Your task to perform on an android device: Open Youtube and go to "Your channel" Image 0: 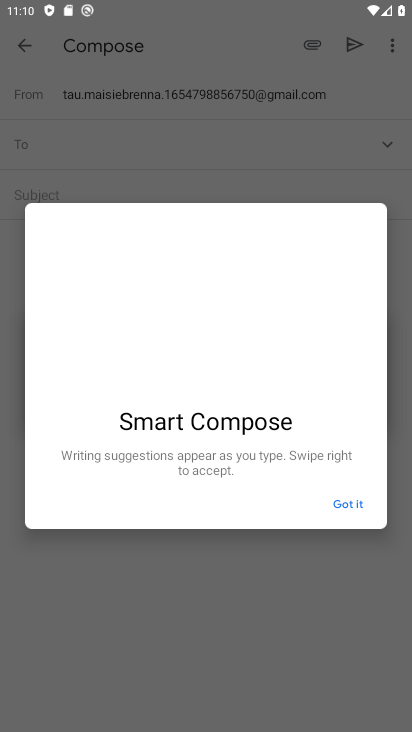
Step 0: press home button
Your task to perform on an android device: Open Youtube and go to "Your channel" Image 1: 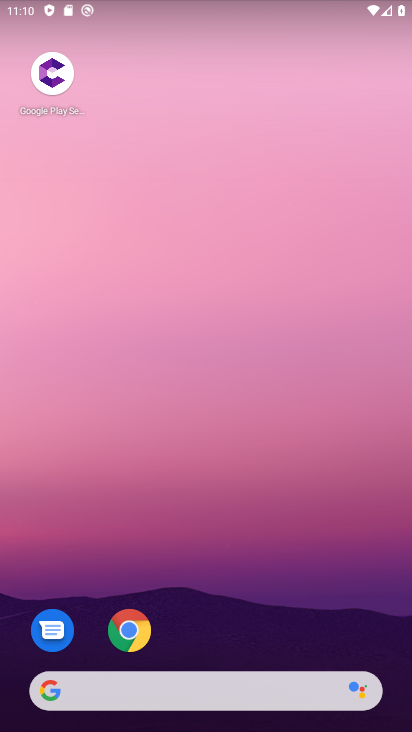
Step 1: drag from (178, 665) to (5, 228)
Your task to perform on an android device: Open Youtube and go to "Your channel" Image 2: 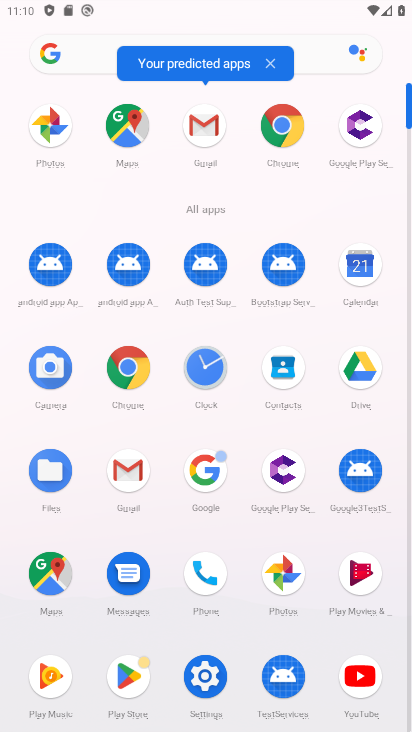
Step 2: click (362, 684)
Your task to perform on an android device: Open Youtube and go to "Your channel" Image 3: 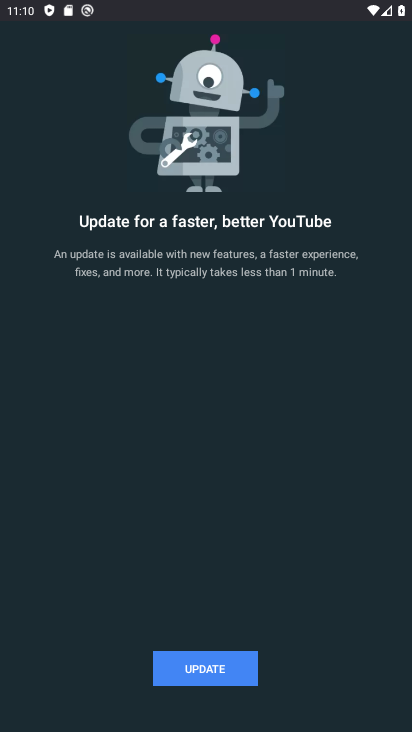
Step 3: click (198, 677)
Your task to perform on an android device: Open Youtube and go to "Your channel" Image 4: 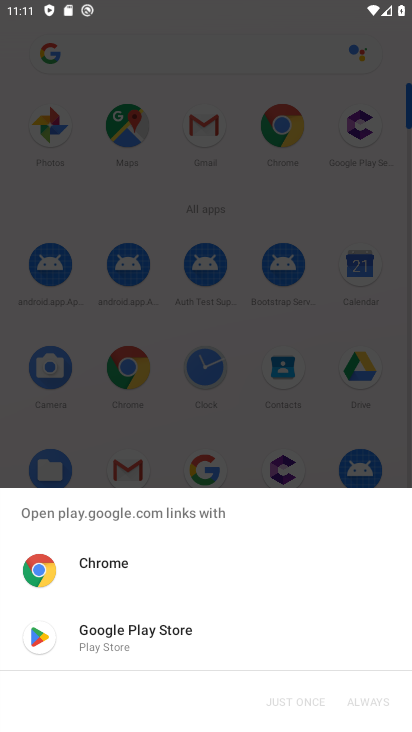
Step 4: click (124, 623)
Your task to perform on an android device: Open Youtube and go to "Your channel" Image 5: 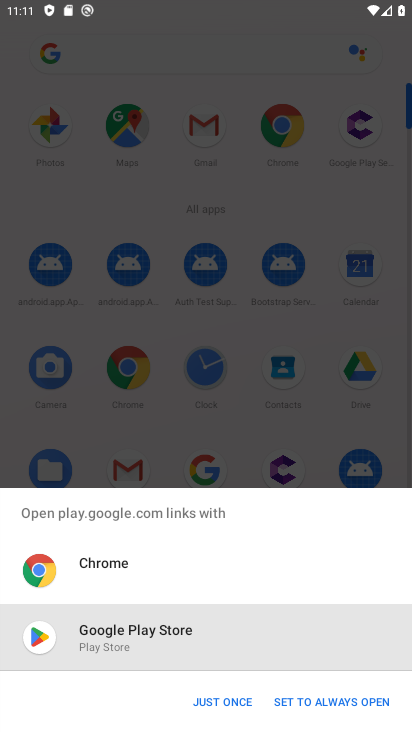
Step 5: click (215, 710)
Your task to perform on an android device: Open Youtube and go to "Your channel" Image 6: 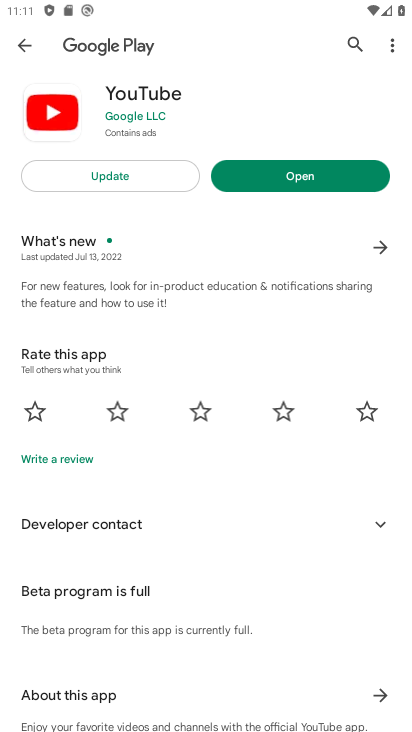
Step 6: click (131, 160)
Your task to perform on an android device: Open Youtube and go to "Your channel" Image 7: 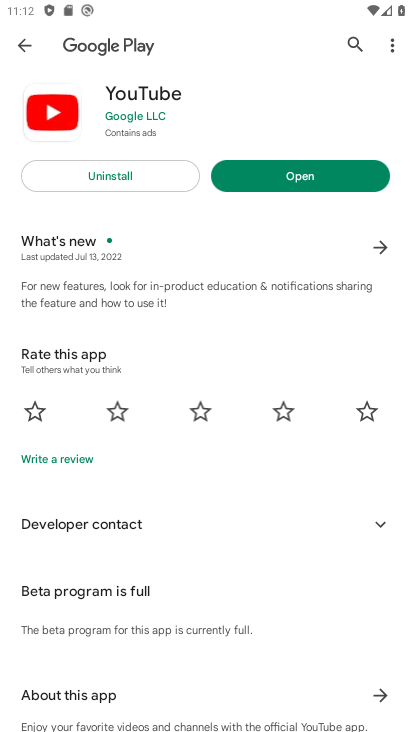
Step 7: click (262, 168)
Your task to perform on an android device: Open Youtube and go to "Your channel" Image 8: 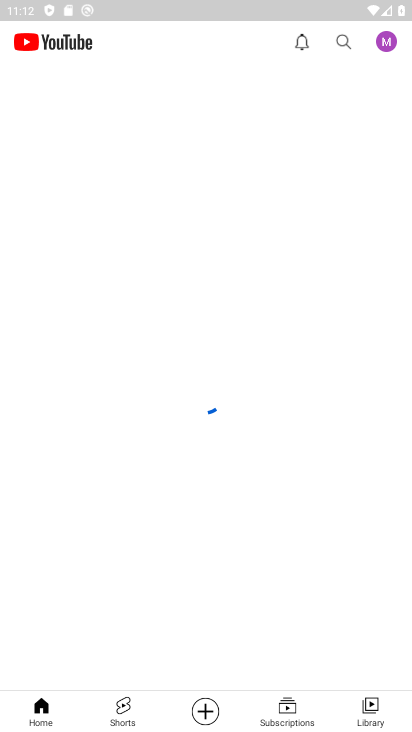
Step 8: click (399, 48)
Your task to perform on an android device: Open Youtube and go to "Your channel" Image 9: 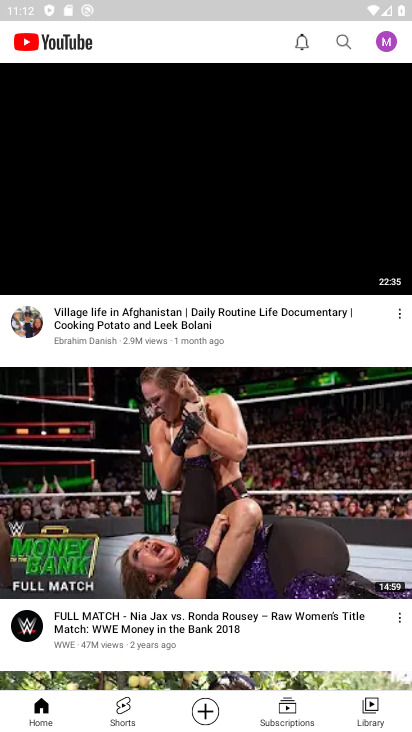
Step 9: click (388, 41)
Your task to perform on an android device: Open Youtube and go to "Your channel" Image 10: 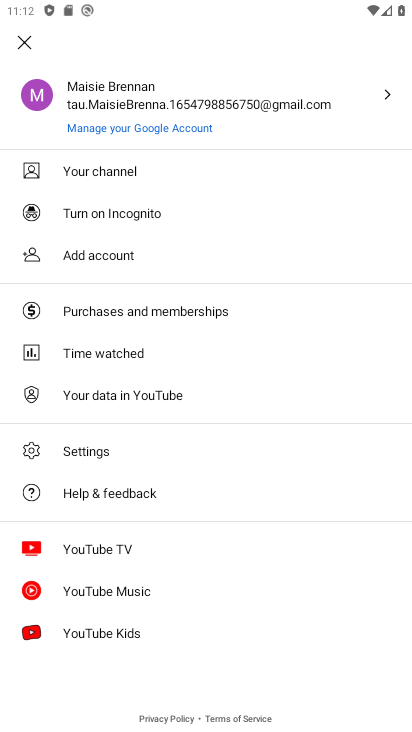
Step 10: click (124, 170)
Your task to perform on an android device: Open Youtube and go to "Your channel" Image 11: 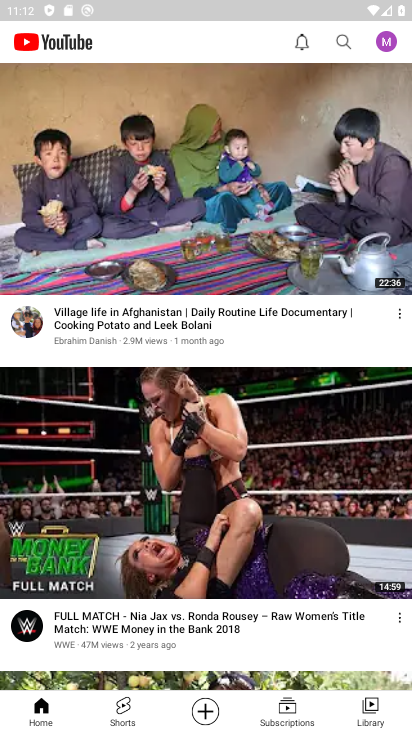
Step 11: task complete